Your task to perform on an android device: turn off javascript in the chrome app Image 0: 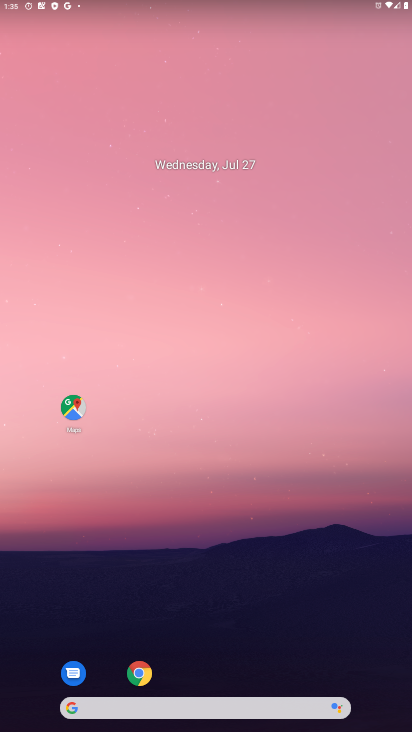
Step 0: click (141, 680)
Your task to perform on an android device: turn off javascript in the chrome app Image 1: 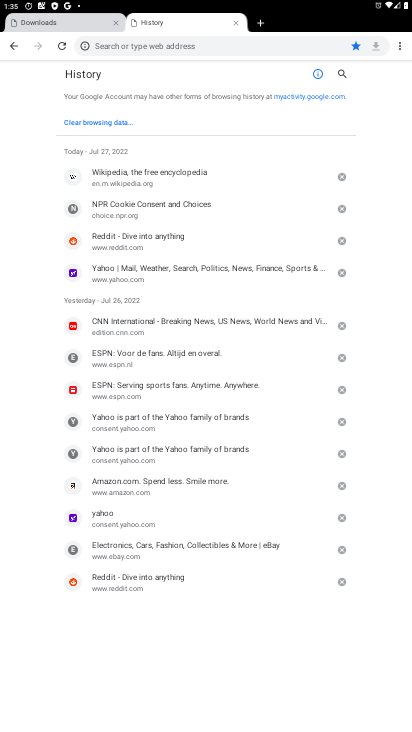
Step 1: drag from (401, 47) to (312, 215)
Your task to perform on an android device: turn off javascript in the chrome app Image 2: 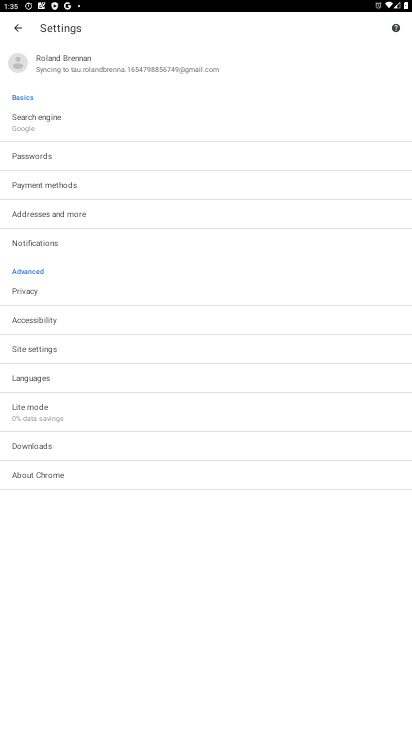
Step 2: click (35, 349)
Your task to perform on an android device: turn off javascript in the chrome app Image 3: 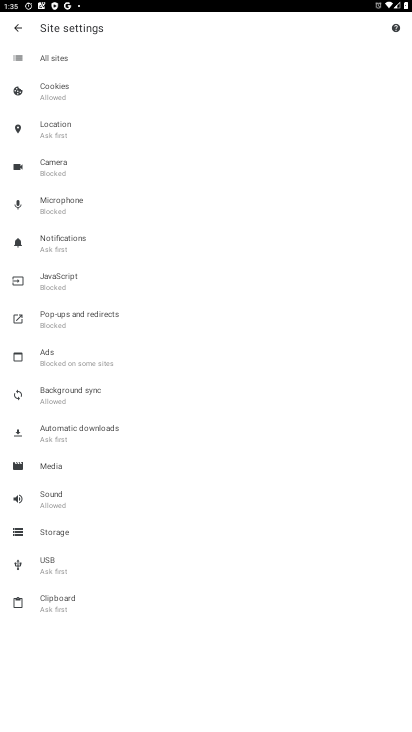
Step 3: click (54, 285)
Your task to perform on an android device: turn off javascript in the chrome app Image 4: 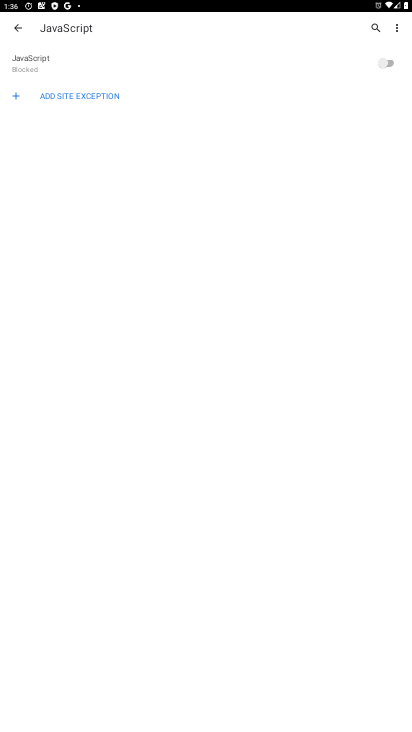
Step 4: task complete